Your task to perform on an android device: Search for the best selling TV on Best Buy. Image 0: 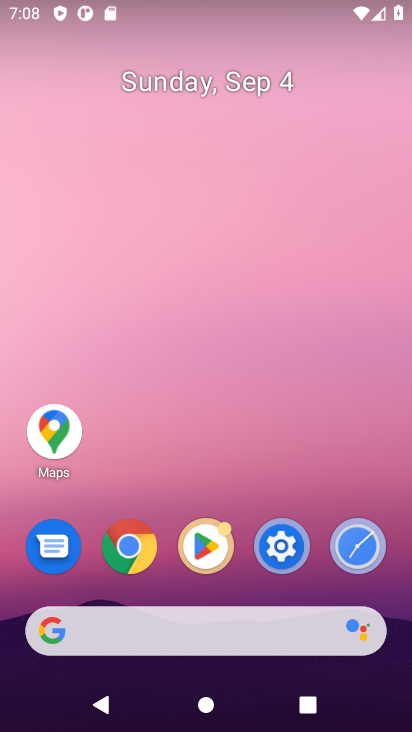
Step 0: click (135, 554)
Your task to perform on an android device: Search for the best selling TV on Best Buy. Image 1: 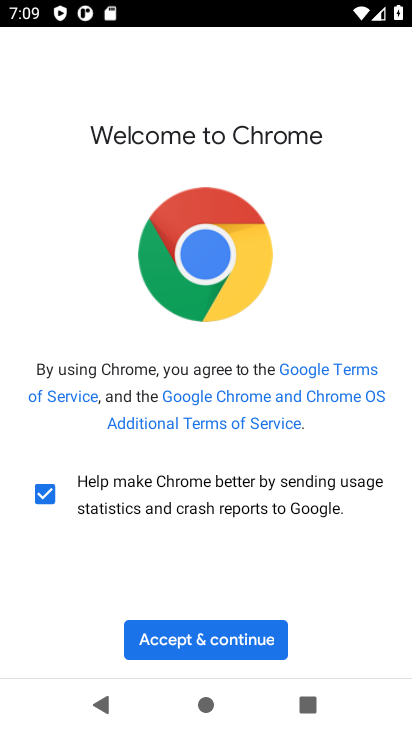
Step 1: click (181, 640)
Your task to perform on an android device: Search for the best selling TV on Best Buy. Image 2: 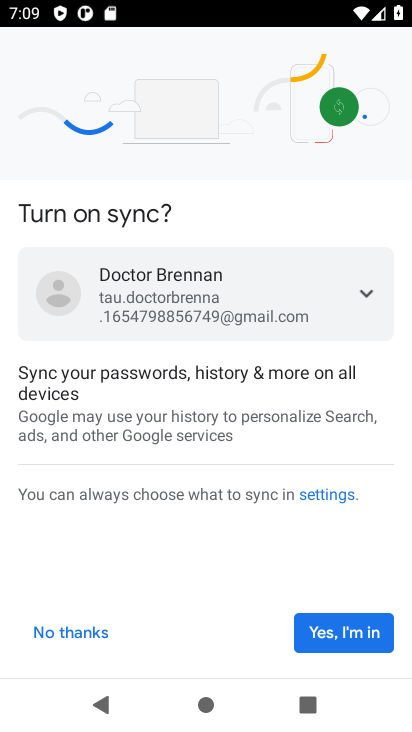
Step 2: click (83, 635)
Your task to perform on an android device: Search for the best selling TV on Best Buy. Image 3: 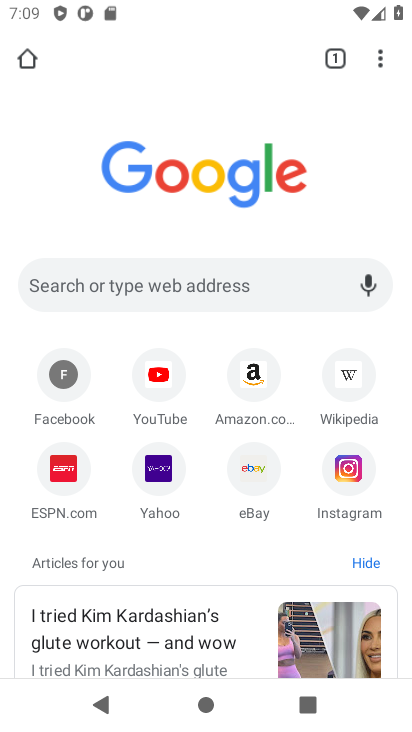
Step 3: click (66, 290)
Your task to perform on an android device: Search for the best selling TV on Best Buy. Image 4: 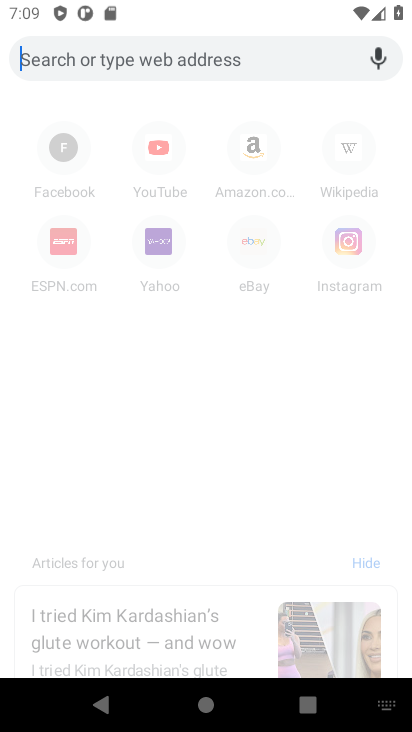
Step 4: type "best buy"
Your task to perform on an android device: Search for the best selling TV on Best Buy. Image 5: 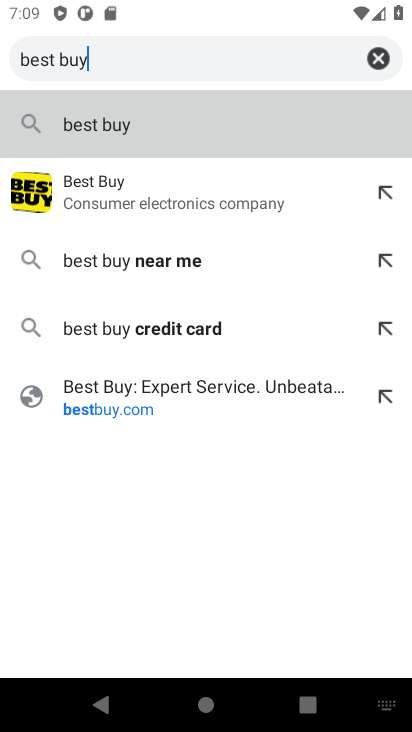
Step 5: click (79, 179)
Your task to perform on an android device: Search for the best selling TV on Best Buy. Image 6: 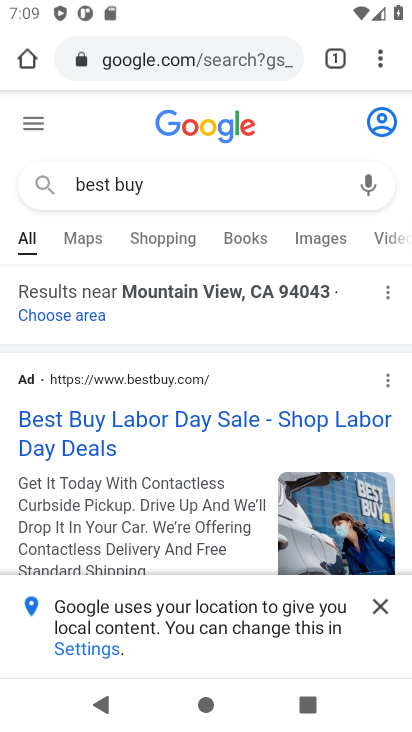
Step 6: drag from (108, 380) to (117, 206)
Your task to perform on an android device: Search for the best selling TV on Best Buy. Image 7: 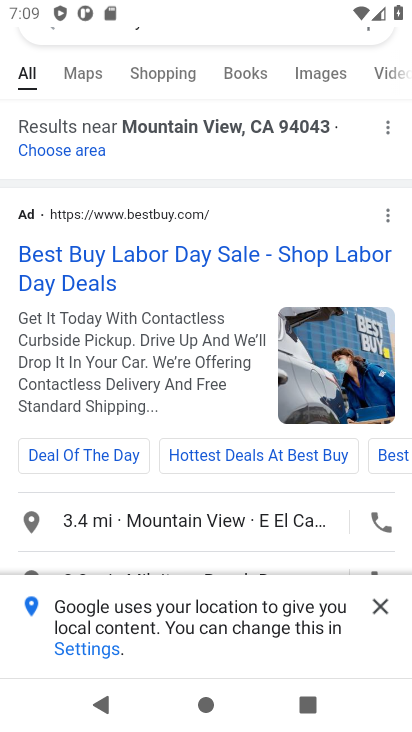
Step 7: drag from (103, 396) to (102, 190)
Your task to perform on an android device: Search for the best selling TV on Best Buy. Image 8: 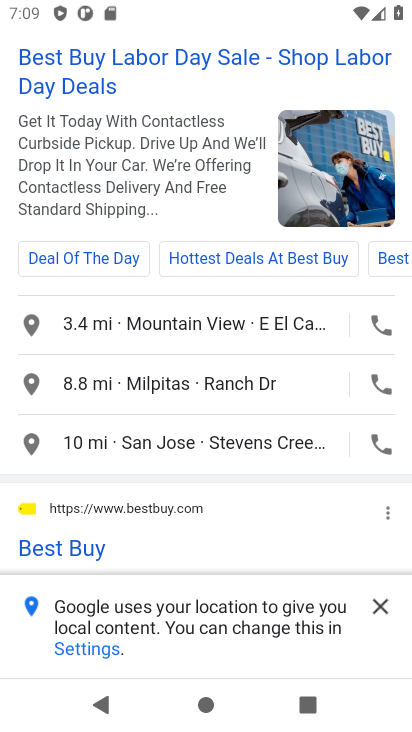
Step 8: drag from (100, 391) to (108, 189)
Your task to perform on an android device: Search for the best selling TV on Best Buy. Image 9: 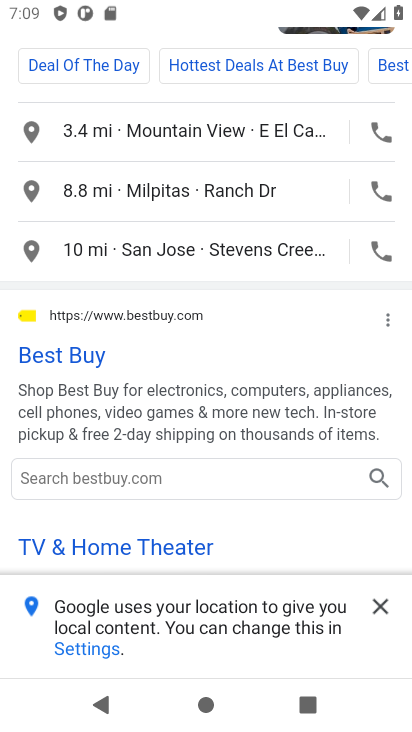
Step 9: click (59, 358)
Your task to perform on an android device: Search for the best selling TV on Best Buy. Image 10: 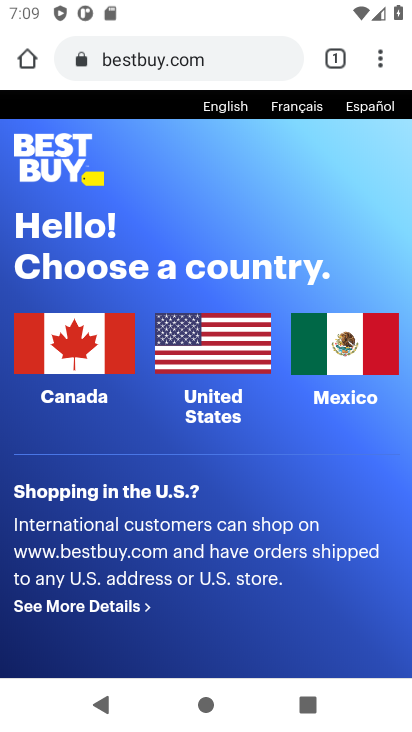
Step 10: click (211, 351)
Your task to perform on an android device: Search for the best selling TV on Best Buy. Image 11: 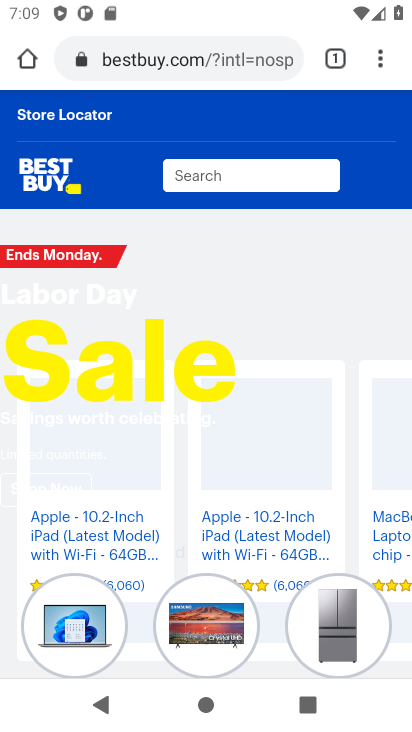
Step 11: click (216, 178)
Your task to perform on an android device: Search for the best selling TV on Best Buy. Image 12: 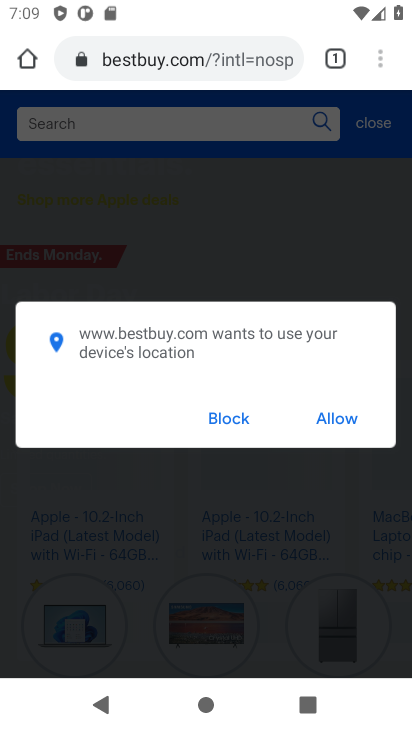
Step 12: click (231, 416)
Your task to perform on an android device: Search for the best selling TV on Best Buy. Image 13: 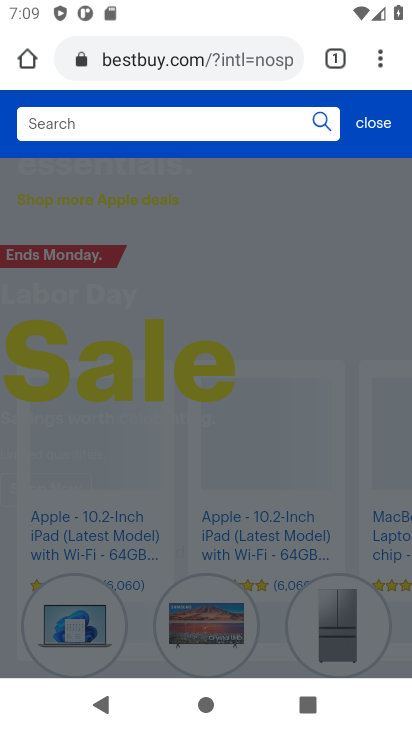
Step 13: type "best selling TV"
Your task to perform on an android device: Search for the best selling TV on Best Buy. Image 14: 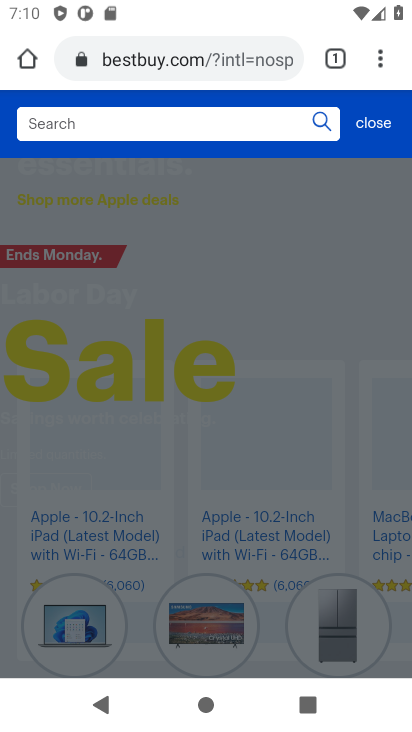
Step 14: click (59, 121)
Your task to perform on an android device: Search for the best selling TV on Best Buy. Image 15: 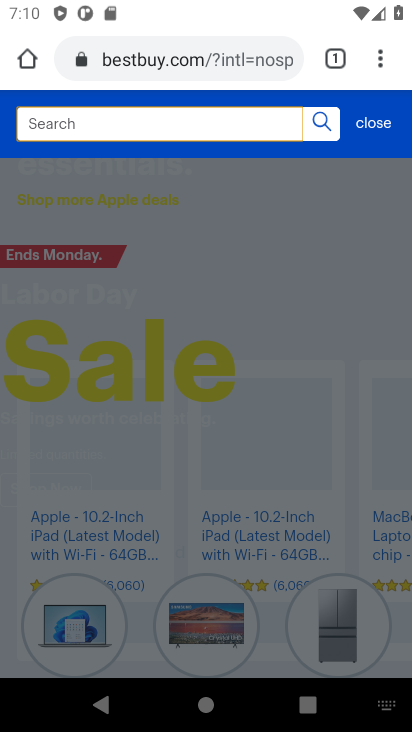
Step 15: type "best selling TV"
Your task to perform on an android device: Search for the best selling TV on Best Buy. Image 16: 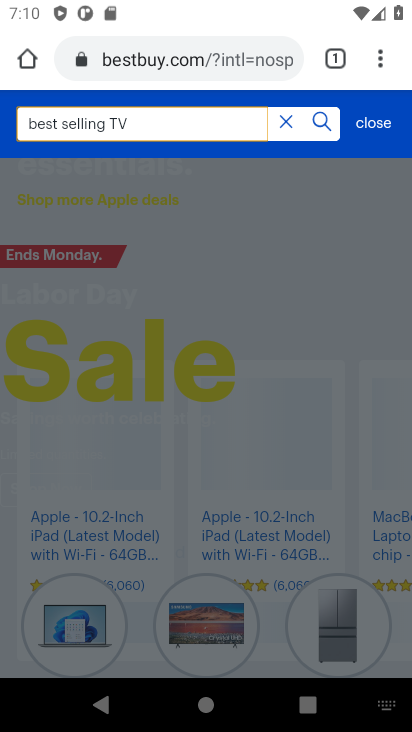
Step 16: click (314, 120)
Your task to perform on an android device: Search for the best selling TV on Best Buy. Image 17: 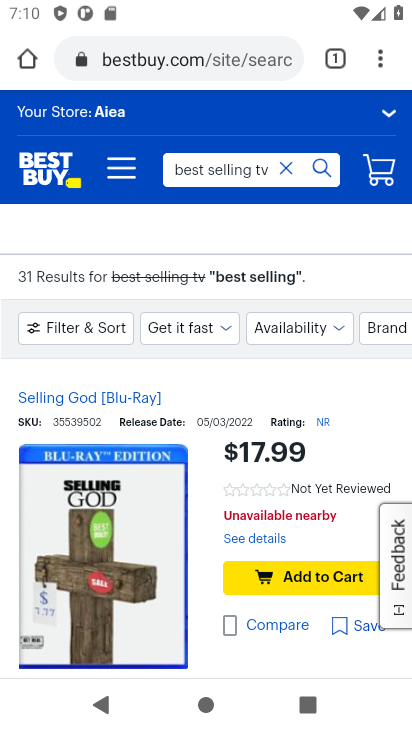
Step 17: task complete